Your task to perform on an android device: open app "Speedtest by Ookla" (install if not already installed) Image 0: 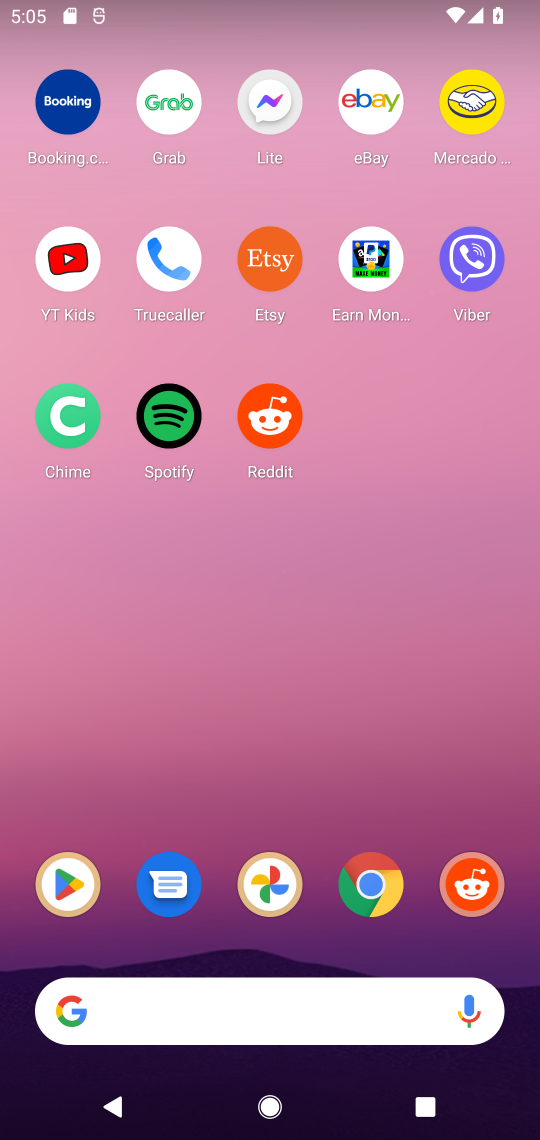
Step 0: drag from (354, 777) to (372, 29)
Your task to perform on an android device: open app "Speedtest by Ookla" (install if not already installed) Image 1: 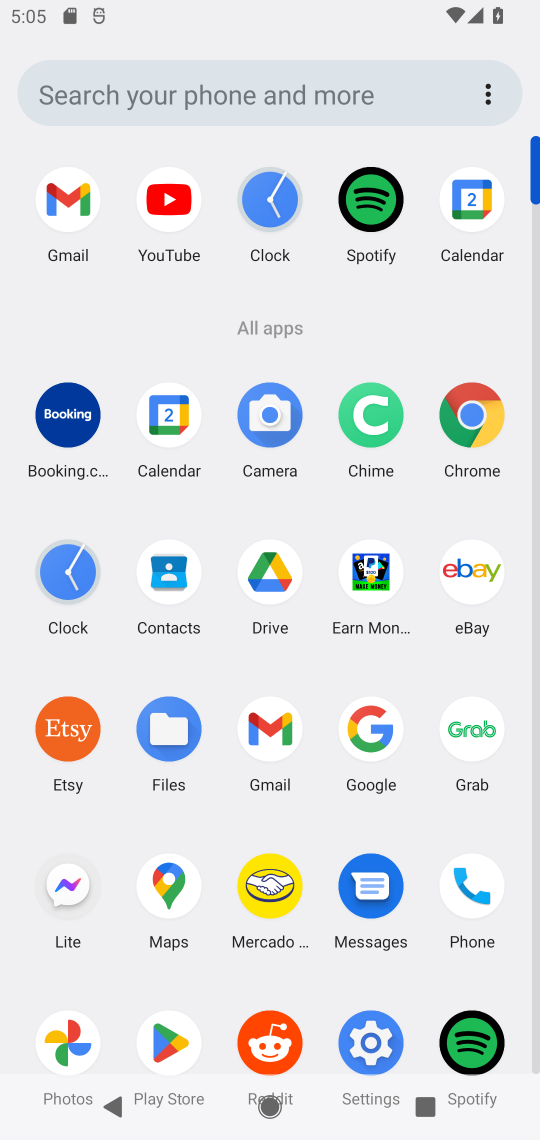
Step 1: click (172, 1039)
Your task to perform on an android device: open app "Speedtest by Ookla" (install if not already installed) Image 2: 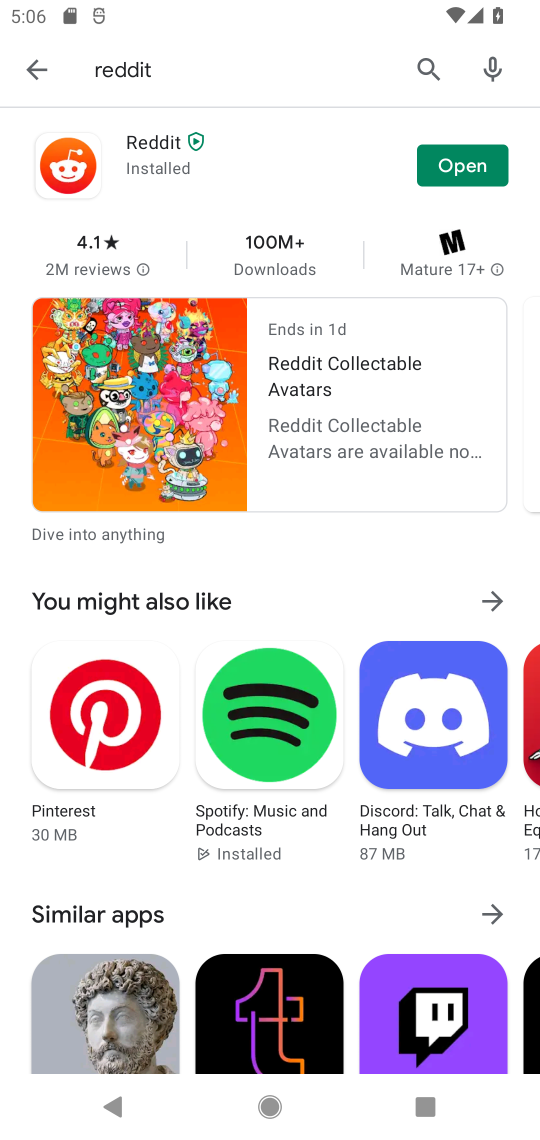
Step 2: click (35, 55)
Your task to perform on an android device: open app "Speedtest by Ookla" (install if not already installed) Image 3: 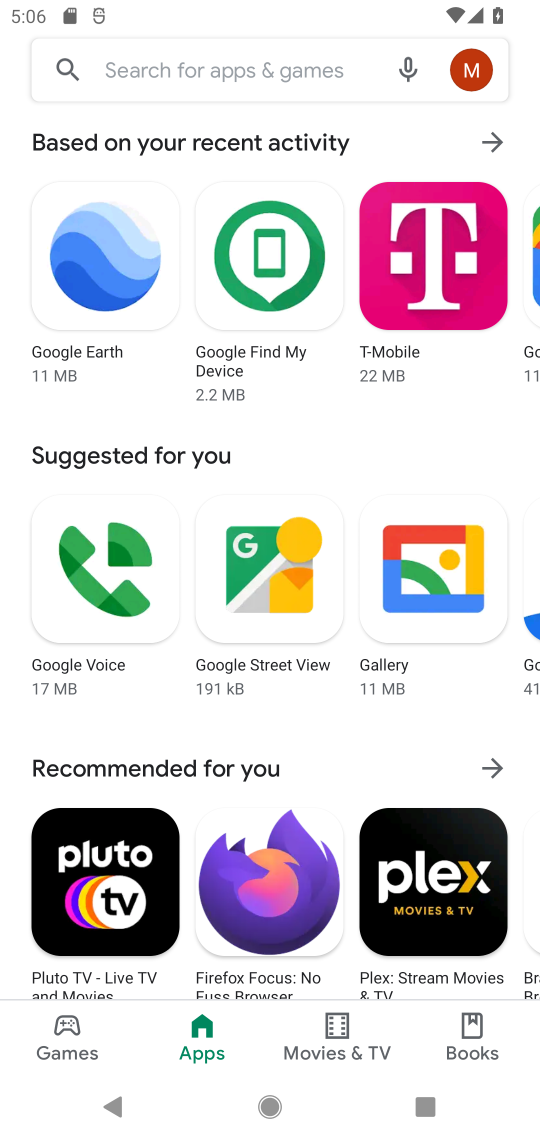
Step 3: click (174, 68)
Your task to perform on an android device: open app "Speedtest by Ookla" (install if not already installed) Image 4: 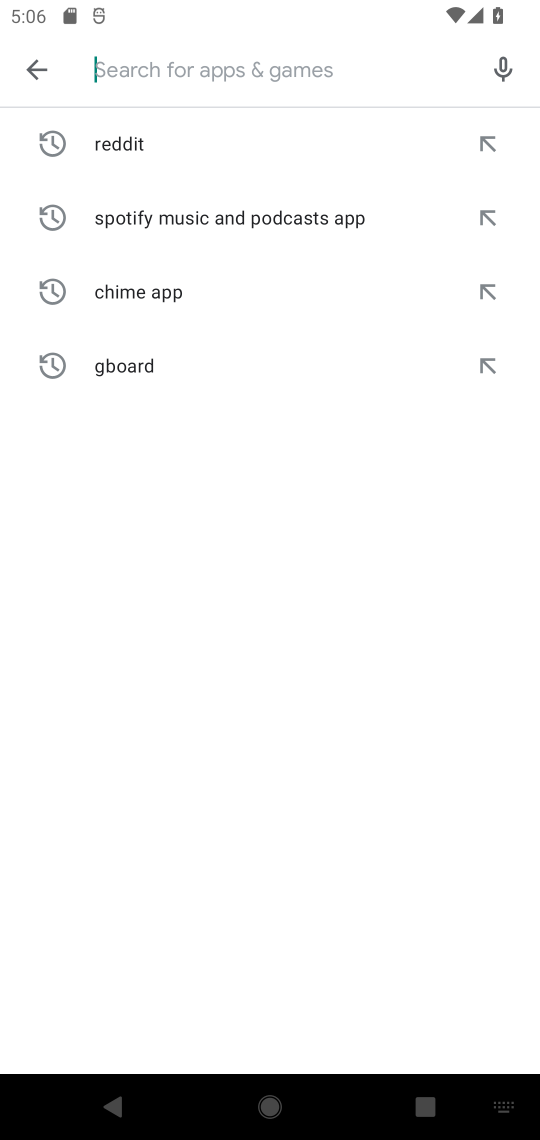
Step 4: type "Speedtest by Ookla"
Your task to perform on an android device: open app "Speedtest by Ookla" (install if not already installed) Image 5: 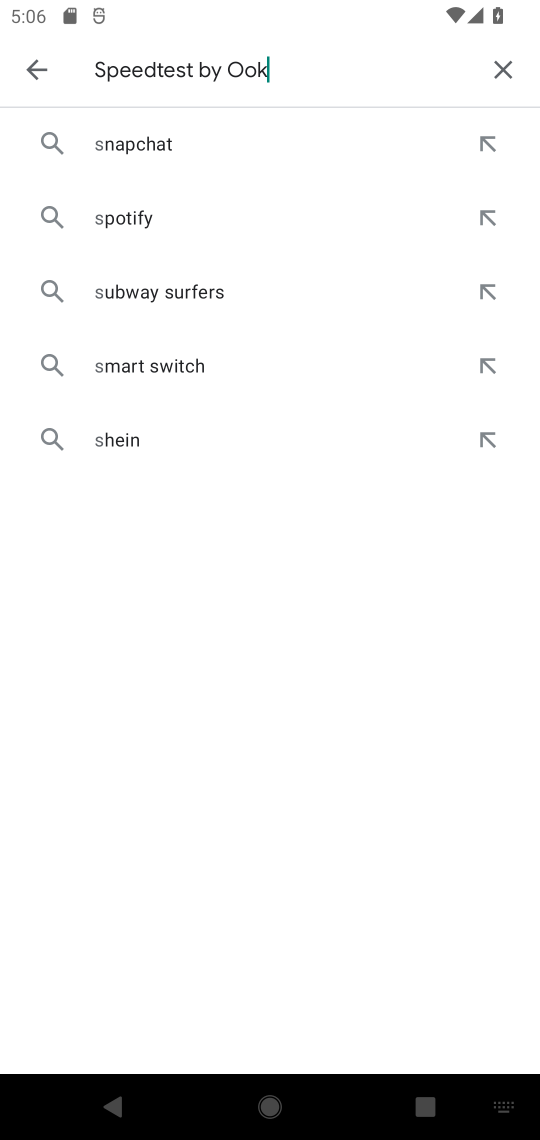
Step 5: type ""
Your task to perform on an android device: open app "Speedtest by Ookla" (install if not already installed) Image 6: 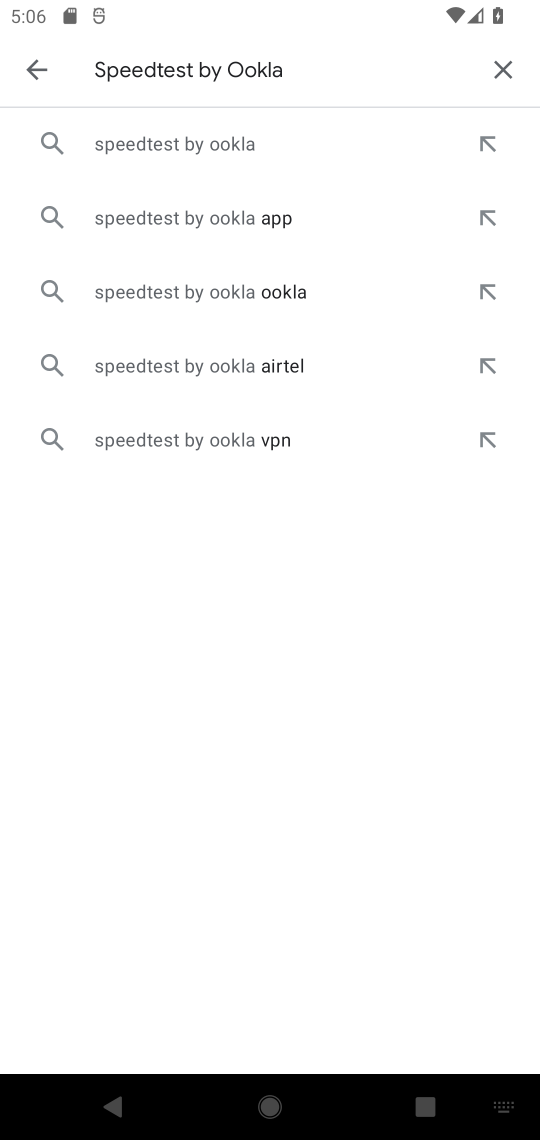
Step 6: click (209, 146)
Your task to perform on an android device: open app "Speedtest by Ookla" (install if not already installed) Image 7: 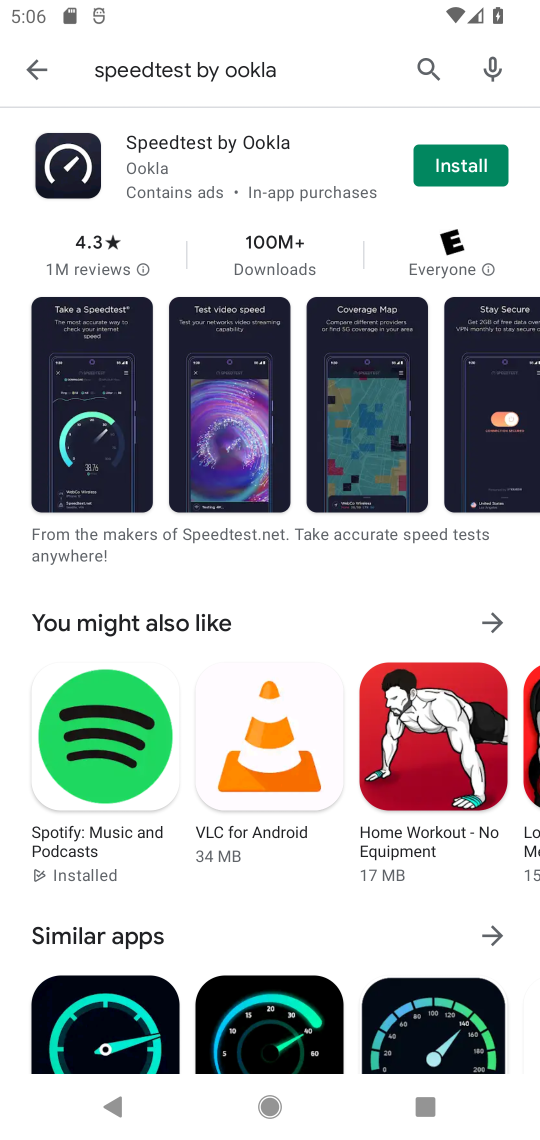
Step 7: click (463, 146)
Your task to perform on an android device: open app "Speedtest by Ookla" (install if not already installed) Image 8: 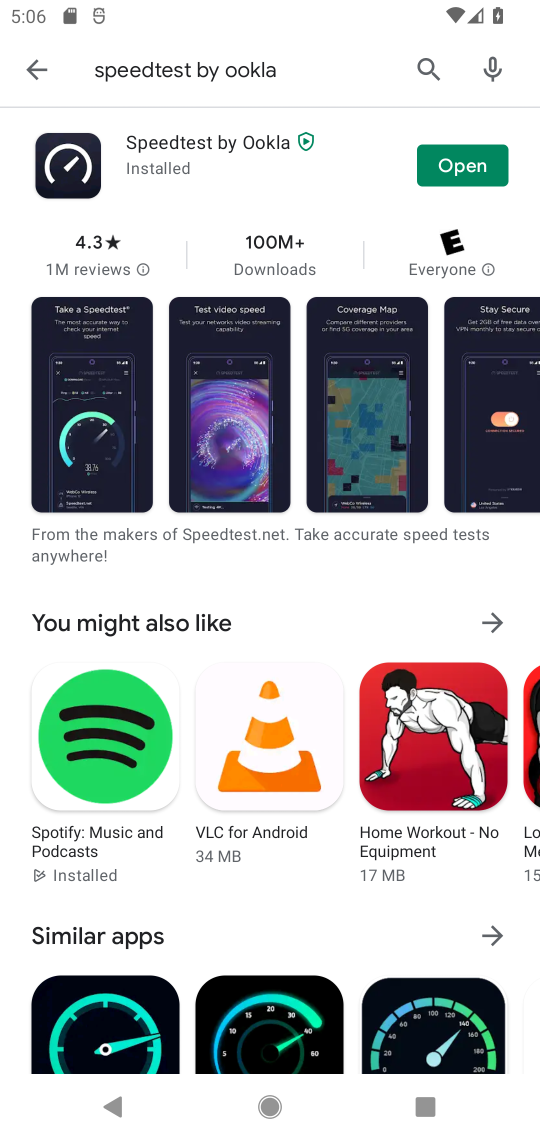
Step 8: click (492, 156)
Your task to perform on an android device: open app "Speedtest by Ookla" (install if not already installed) Image 9: 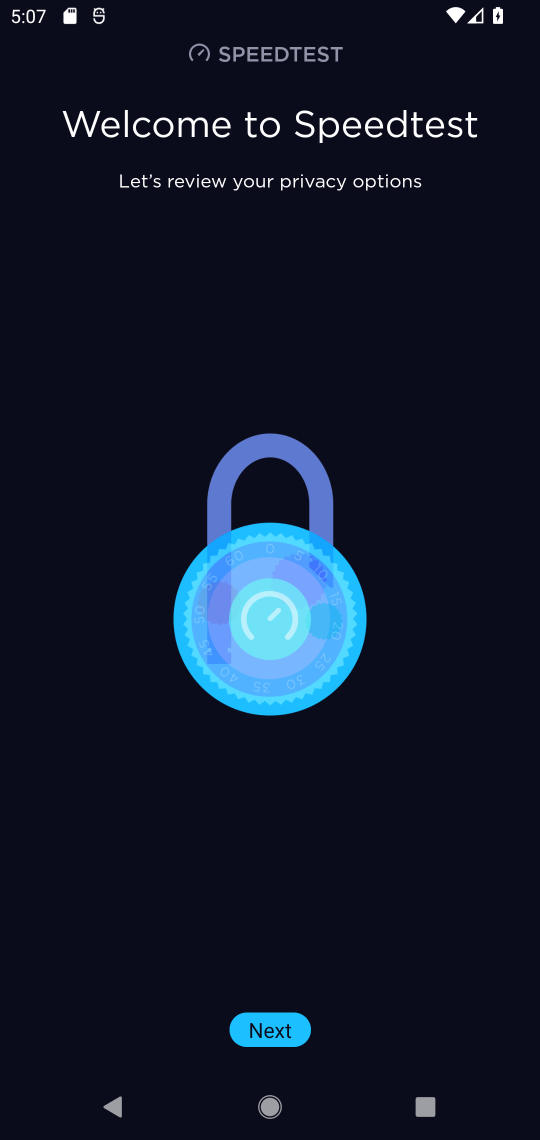
Step 9: task complete